Your task to perform on an android device: change notifications settings Image 0: 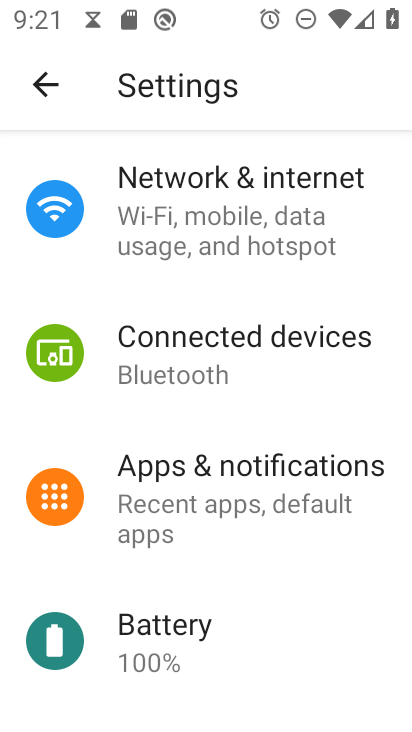
Step 0: click (224, 484)
Your task to perform on an android device: change notifications settings Image 1: 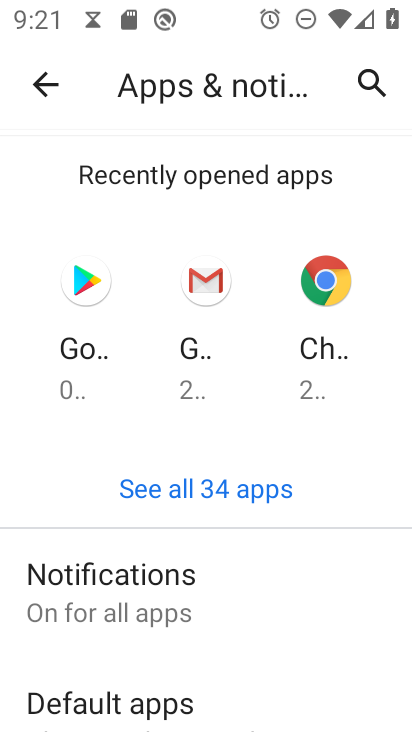
Step 1: click (243, 610)
Your task to perform on an android device: change notifications settings Image 2: 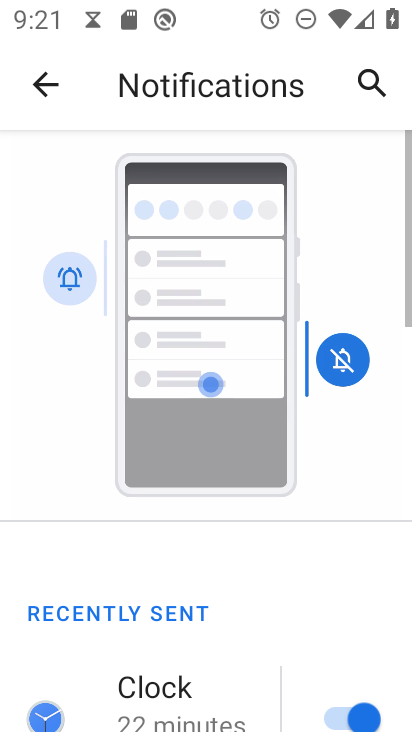
Step 2: drag from (249, 629) to (315, 5)
Your task to perform on an android device: change notifications settings Image 3: 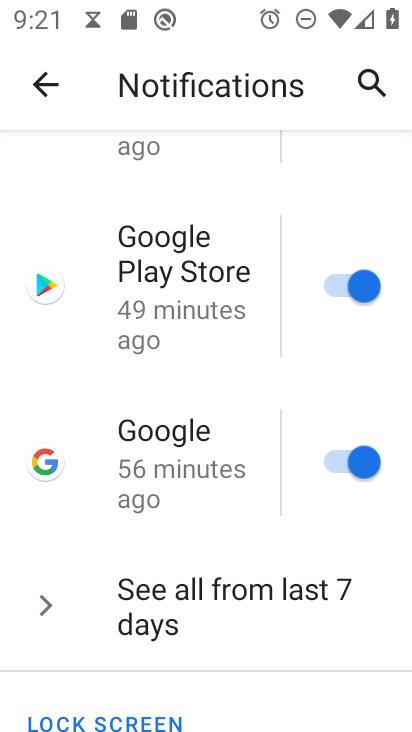
Step 3: click (334, 626)
Your task to perform on an android device: change notifications settings Image 4: 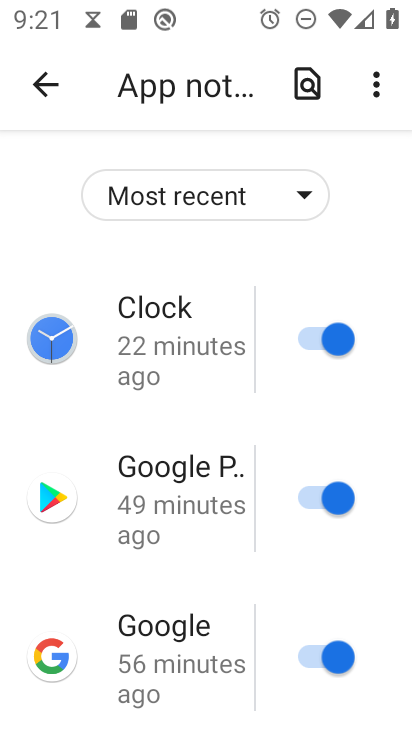
Step 4: click (343, 342)
Your task to perform on an android device: change notifications settings Image 5: 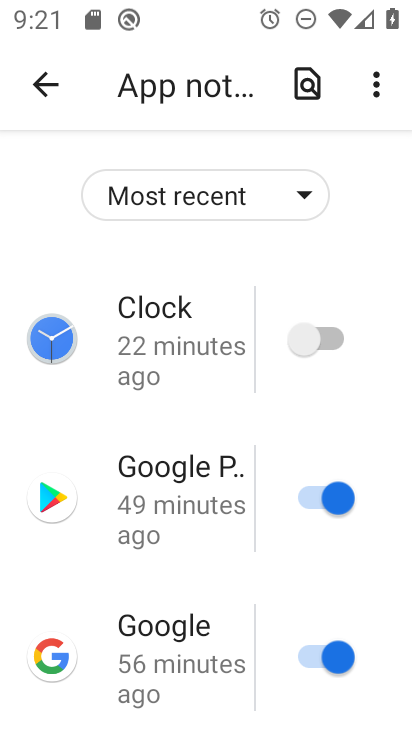
Step 5: click (321, 486)
Your task to perform on an android device: change notifications settings Image 6: 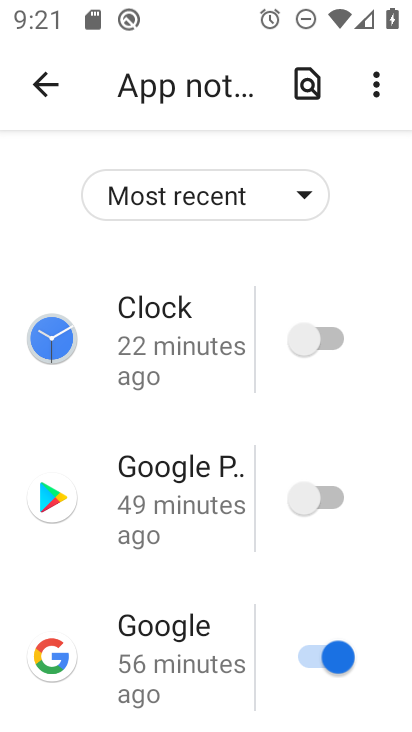
Step 6: click (345, 671)
Your task to perform on an android device: change notifications settings Image 7: 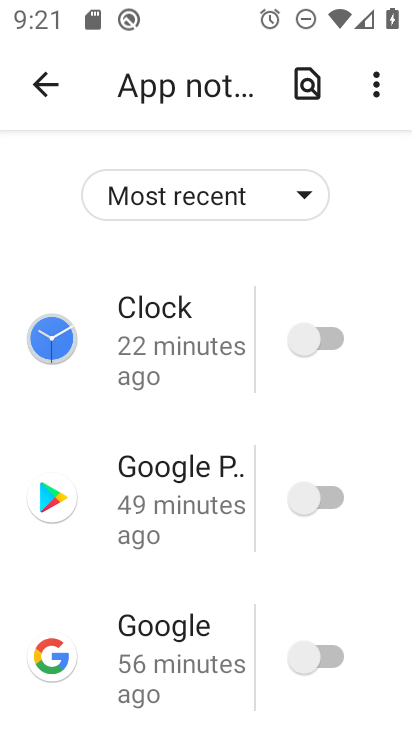
Step 7: drag from (105, 651) to (123, 120)
Your task to perform on an android device: change notifications settings Image 8: 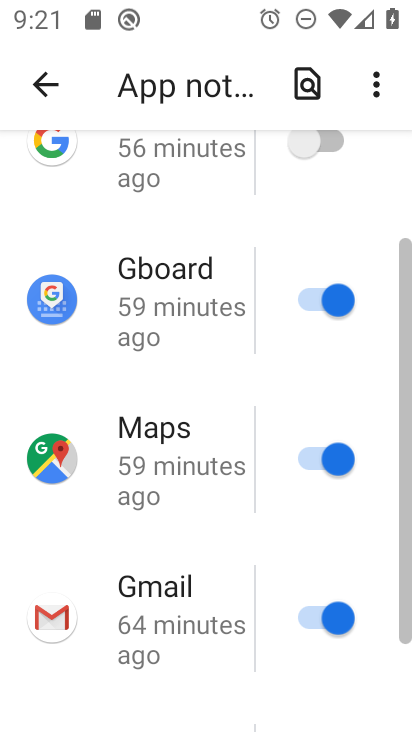
Step 8: click (329, 294)
Your task to perform on an android device: change notifications settings Image 9: 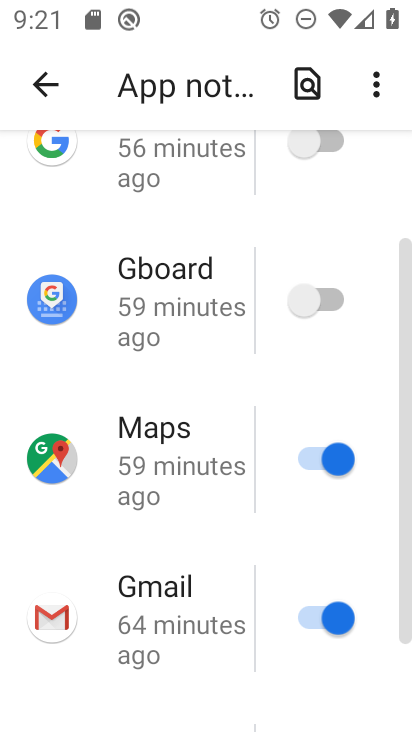
Step 9: click (343, 447)
Your task to perform on an android device: change notifications settings Image 10: 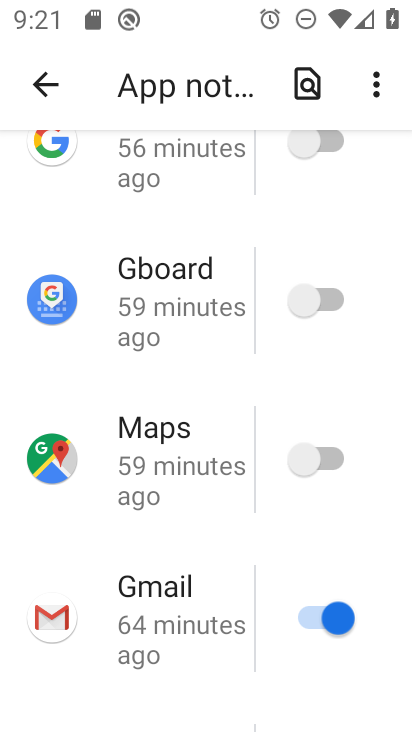
Step 10: click (323, 636)
Your task to perform on an android device: change notifications settings Image 11: 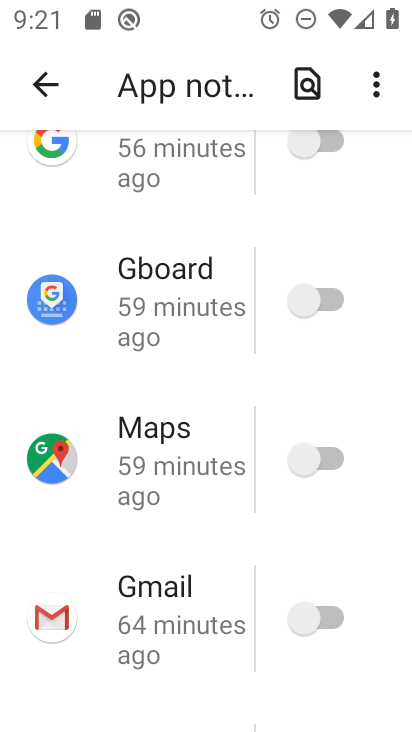
Step 11: drag from (179, 665) to (141, 214)
Your task to perform on an android device: change notifications settings Image 12: 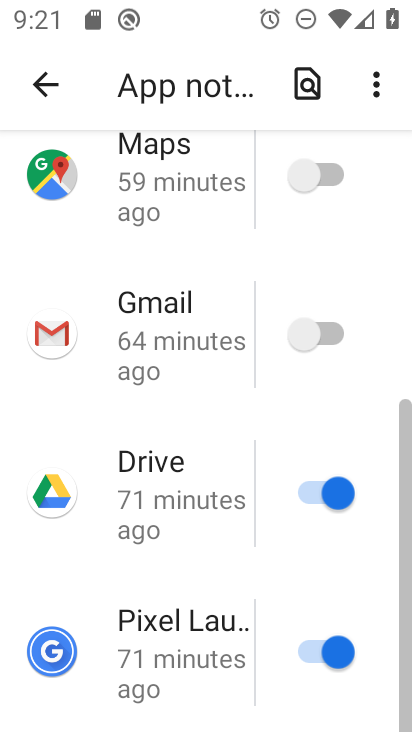
Step 12: click (322, 490)
Your task to perform on an android device: change notifications settings Image 13: 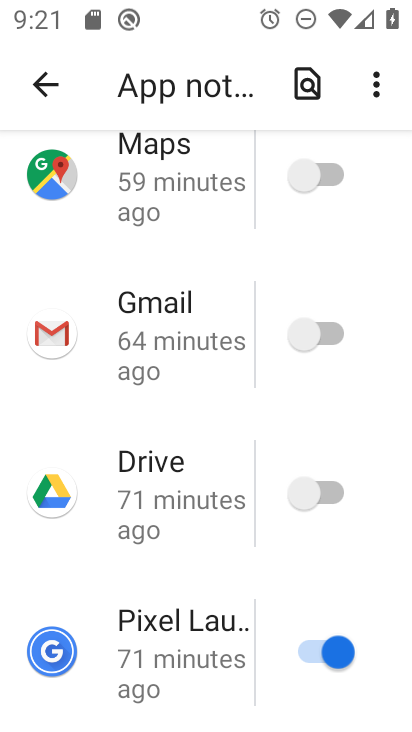
Step 13: click (341, 657)
Your task to perform on an android device: change notifications settings Image 14: 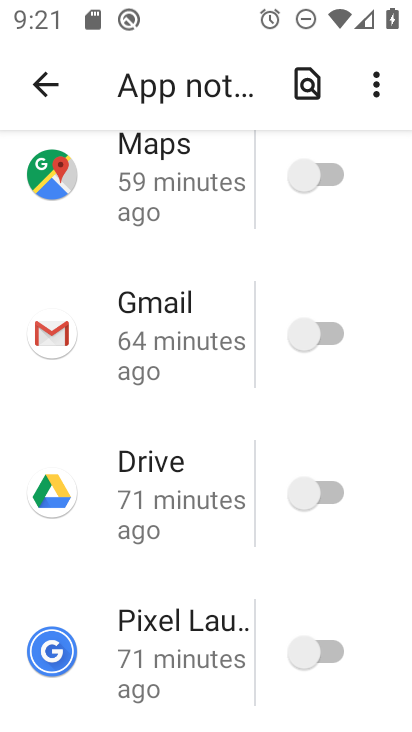
Step 14: drag from (230, 676) to (216, 294)
Your task to perform on an android device: change notifications settings Image 15: 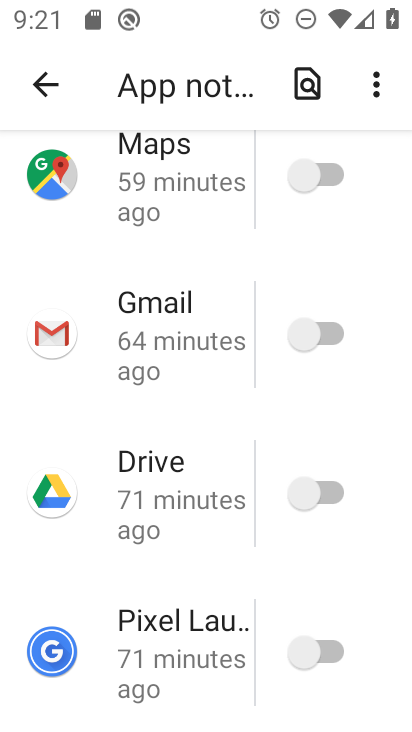
Step 15: click (50, 86)
Your task to perform on an android device: change notifications settings Image 16: 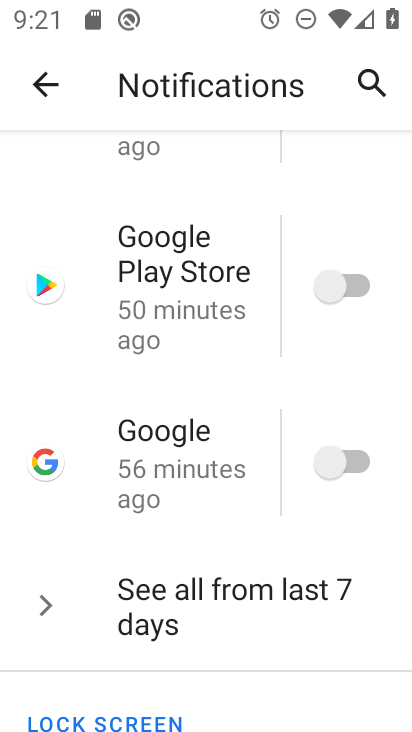
Step 16: drag from (288, 567) to (268, 349)
Your task to perform on an android device: change notifications settings Image 17: 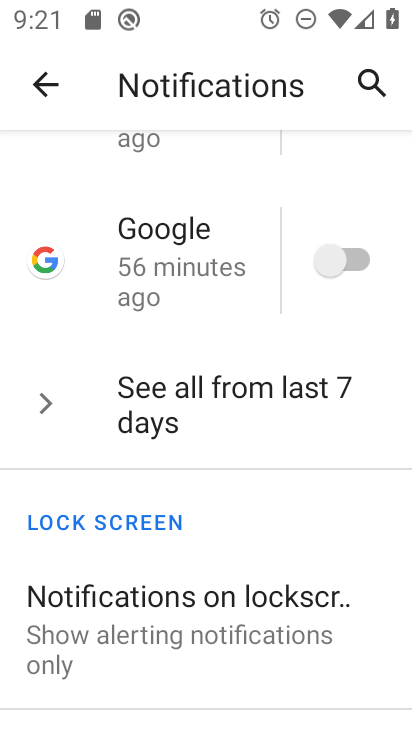
Step 17: drag from (280, 554) to (278, 364)
Your task to perform on an android device: change notifications settings Image 18: 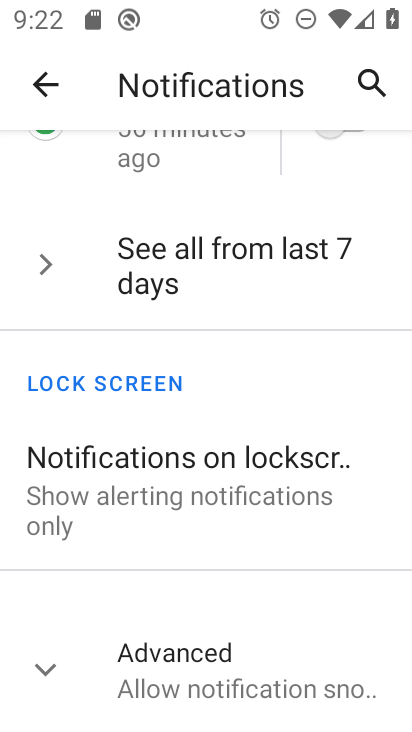
Step 18: click (252, 457)
Your task to perform on an android device: change notifications settings Image 19: 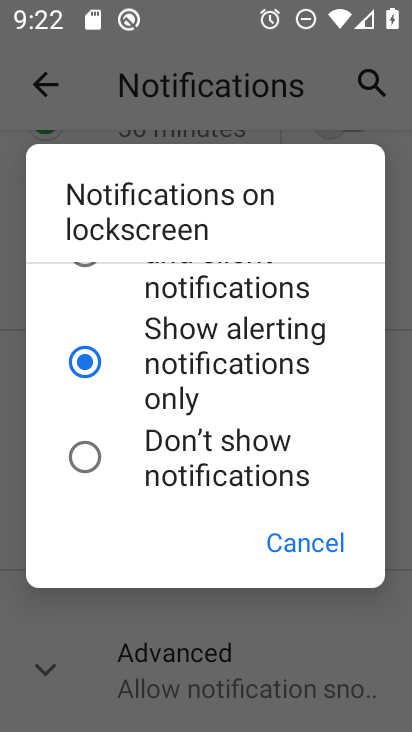
Step 19: drag from (246, 338) to (293, 462)
Your task to perform on an android device: change notifications settings Image 20: 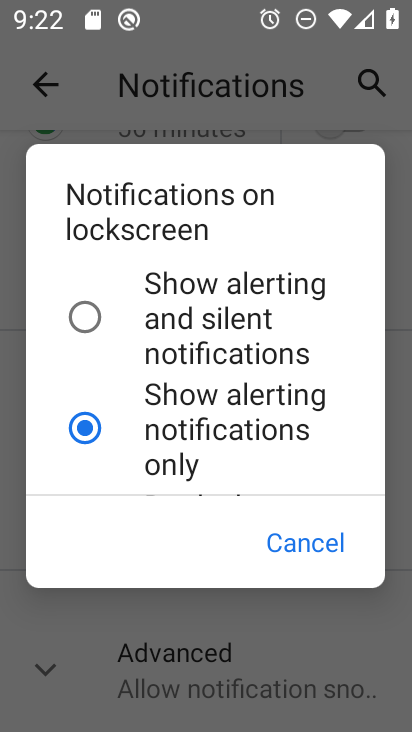
Step 20: click (230, 322)
Your task to perform on an android device: change notifications settings Image 21: 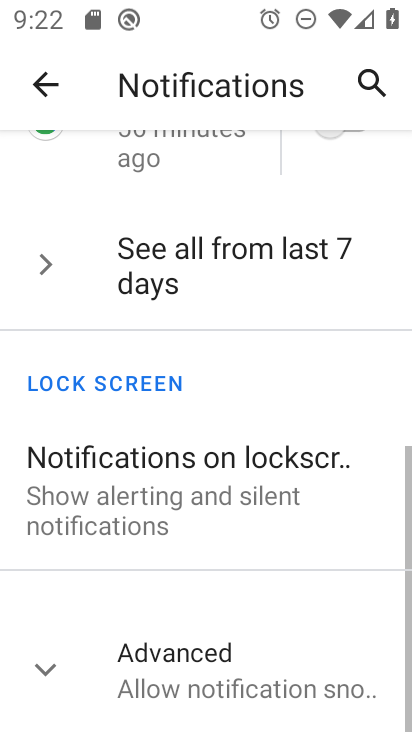
Step 21: click (239, 660)
Your task to perform on an android device: change notifications settings Image 22: 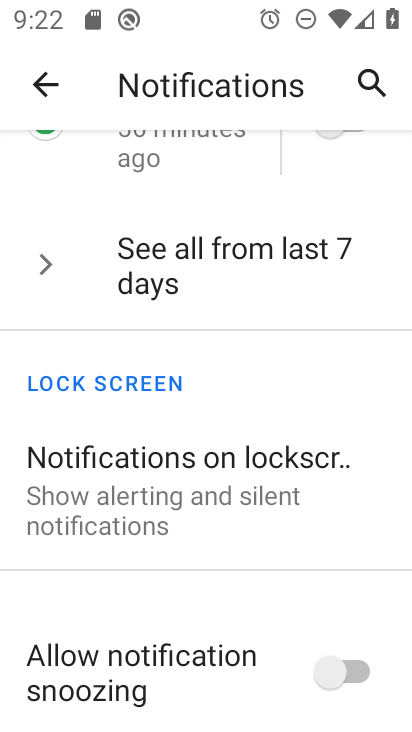
Step 22: drag from (207, 656) to (228, 251)
Your task to perform on an android device: change notifications settings Image 23: 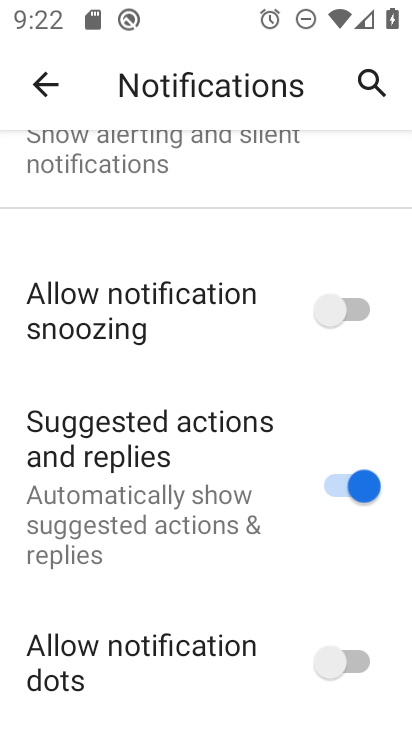
Step 23: click (317, 309)
Your task to perform on an android device: change notifications settings Image 24: 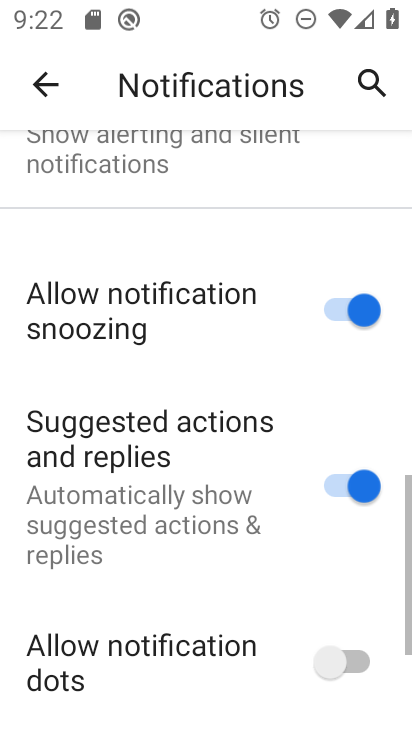
Step 24: click (328, 488)
Your task to perform on an android device: change notifications settings Image 25: 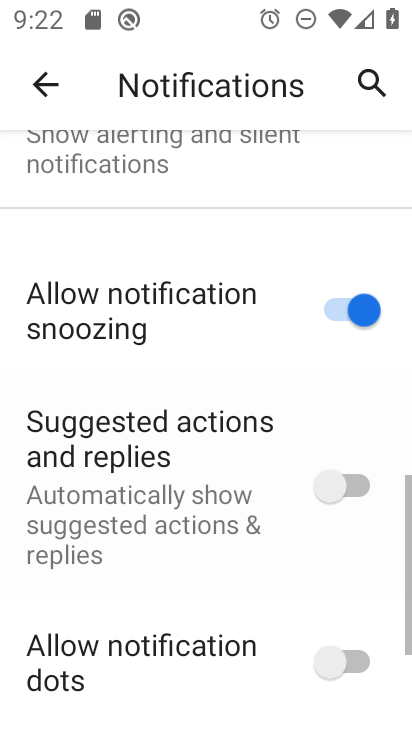
Step 25: click (350, 642)
Your task to perform on an android device: change notifications settings Image 26: 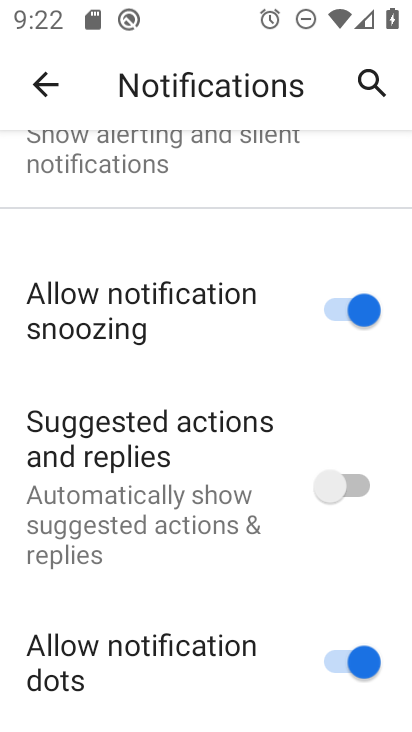
Step 26: task complete